Your task to perform on an android device: turn pop-ups on in chrome Image 0: 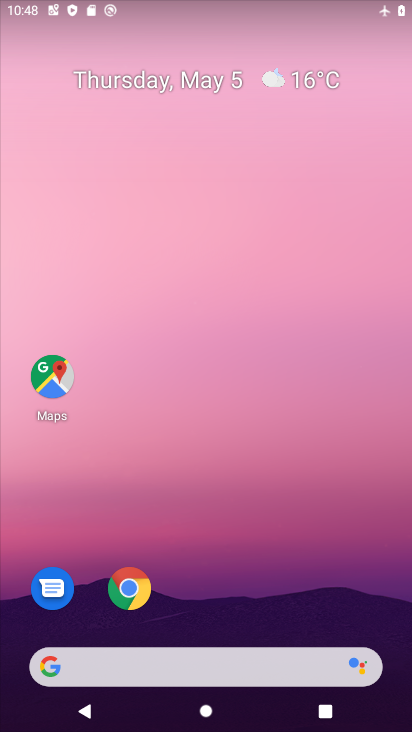
Step 0: drag from (226, 601) to (246, 133)
Your task to perform on an android device: turn pop-ups on in chrome Image 1: 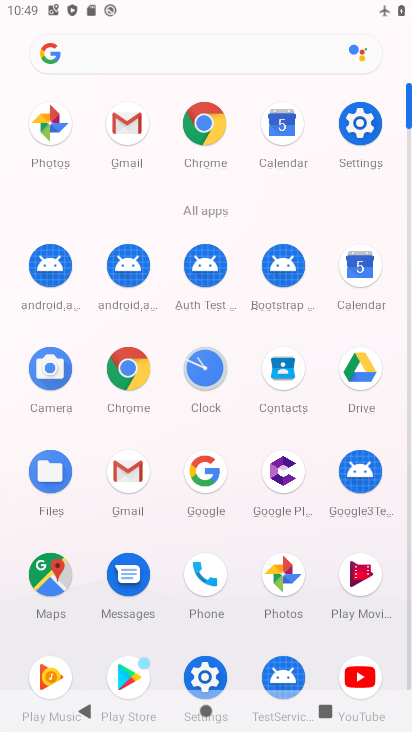
Step 1: click (203, 136)
Your task to perform on an android device: turn pop-ups on in chrome Image 2: 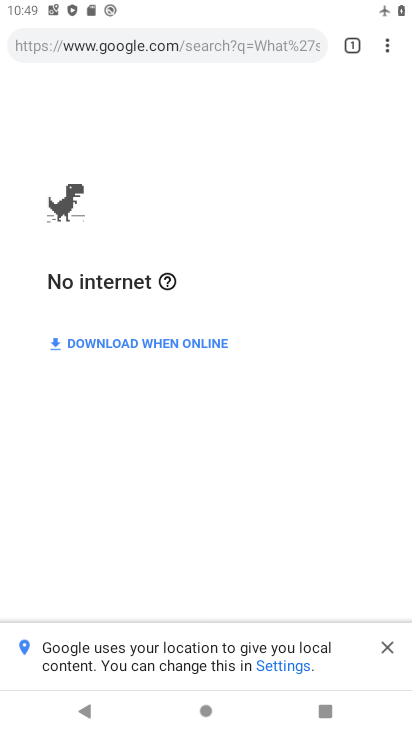
Step 2: drag from (389, 60) to (211, 504)
Your task to perform on an android device: turn pop-ups on in chrome Image 3: 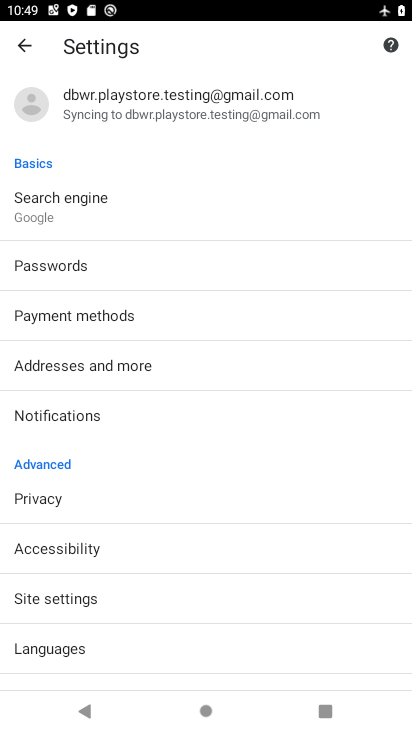
Step 3: click (214, 610)
Your task to perform on an android device: turn pop-ups on in chrome Image 4: 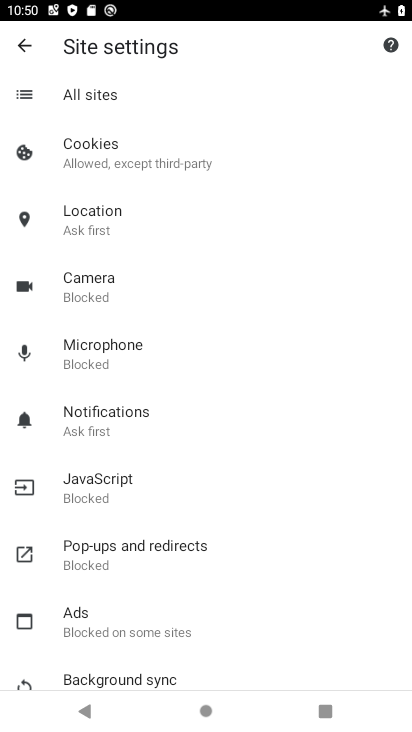
Step 4: click (202, 569)
Your task to perform on an android device: turn pop-ups on in chrome Image 5: 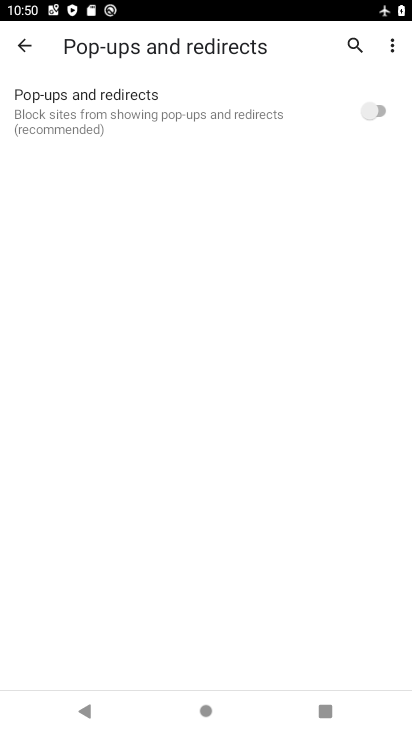
Step 5: click (350, 125)
Your task to perform on an android device: turn pop-ups on in chrome Image 6: 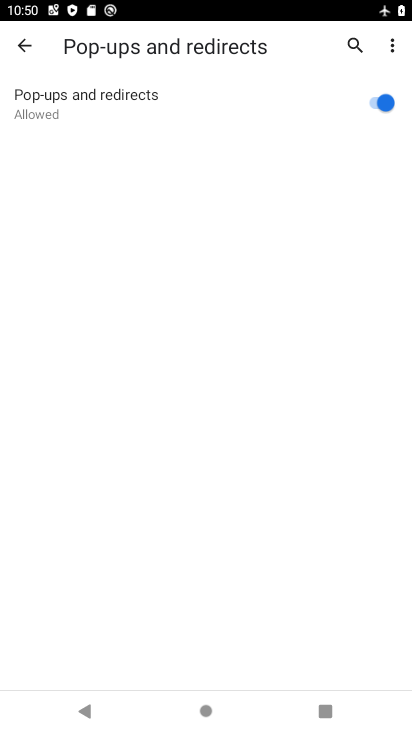
Step 6: task complete